Your task to perform on an android device: Play the last video I watched on Youtube Image 0: 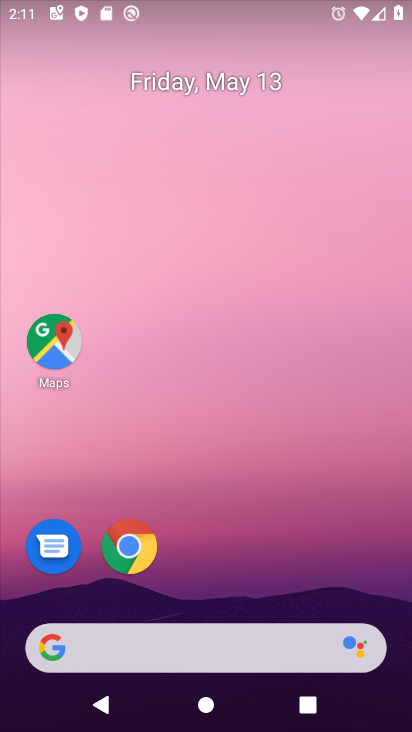
Step 0: drag from (328, 583) to (236, 145)
Your task to perform on an android device: Play the last video I watched on Youtube Image 1: 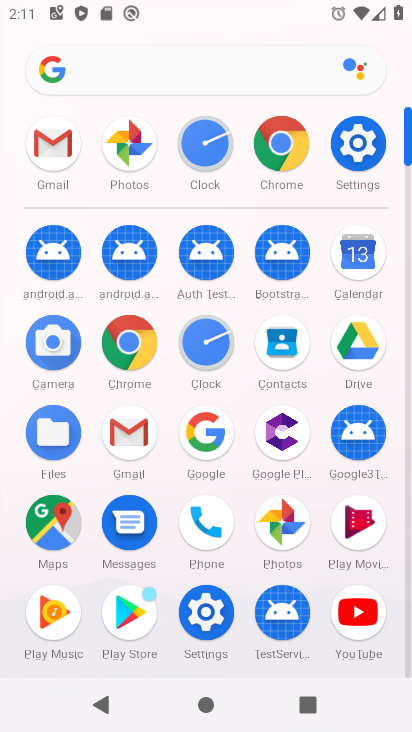
Step 1: click (354, 622)
Your task to perform on an android device: Play the last video I watched on Youtube Image 2: 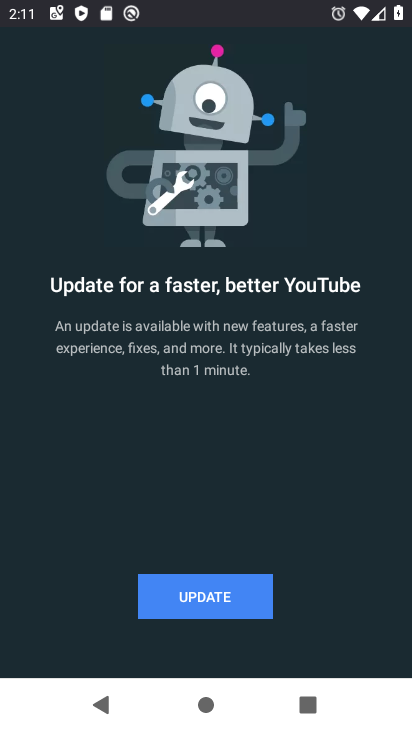
Step 2: click (213, 601)
Your task to perform on an android device: Play the last video I watched on Youtube Image 3: 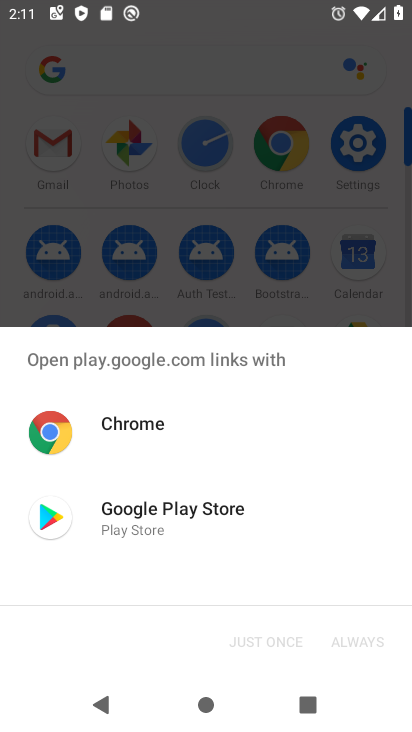
Step 3: click (111, 508)
Your task to perform on an android device: Play the last video I watched on Youtube Image 4: 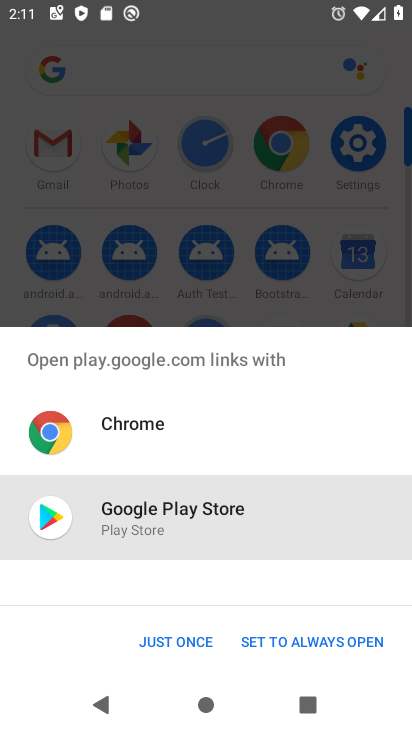
Step 4: click (161, 638)
Your task to perform on an android device: Play the last video I watched on Youtube Image 5: 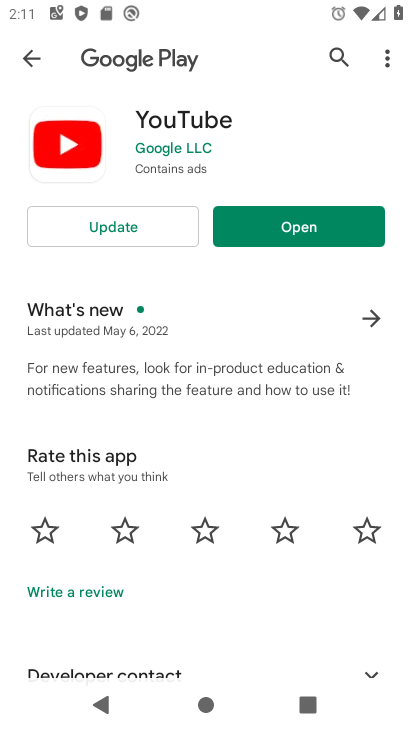
Step 5: click (172, 237)
Your task to perform on an android device: Play the last video I watched on Youtube Image 6: 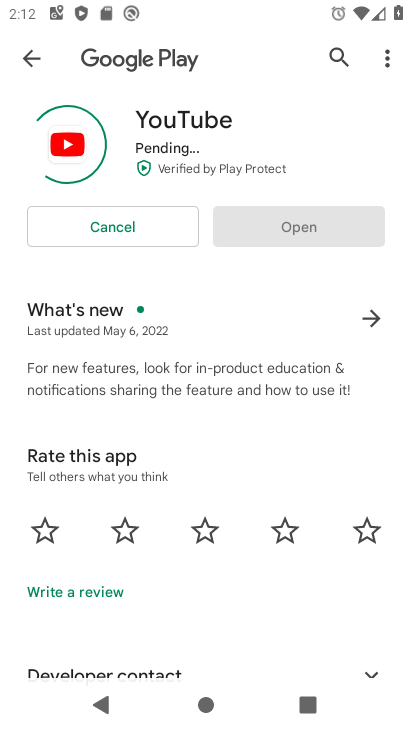
Step 6: task complete